Your task to perform on an android device: visit the assistant section in the google photos Image 0: 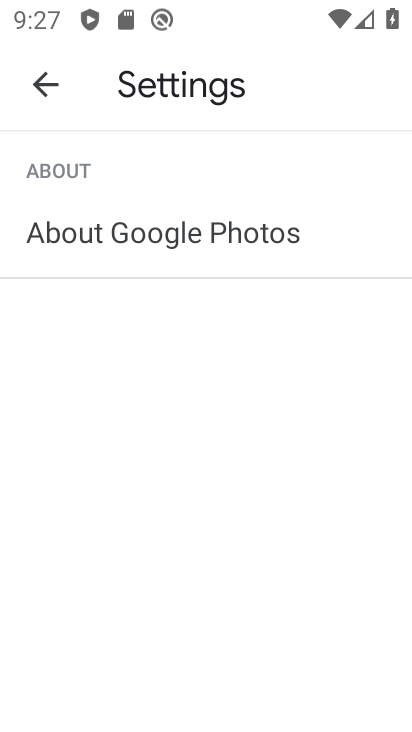
Step 0: press back button
Your task to perform on an android device: visit the assistant section in the google photos Image 1: 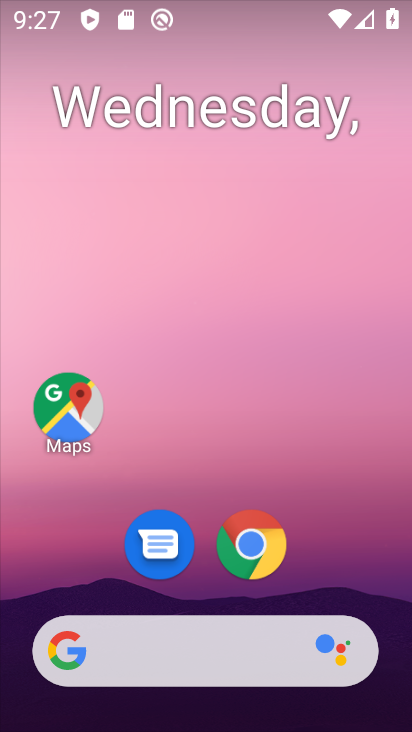
Step 1: drag from (364, 228) to (338, 22)
Your task to perform on an android device: visit the assistant section in the google photos Image 2: 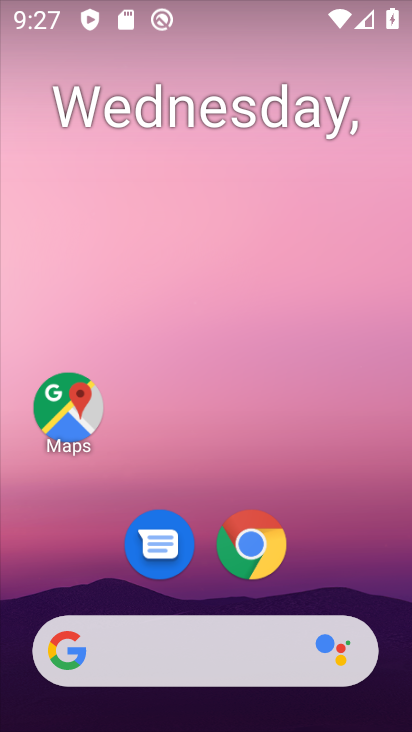
Step 2: drag from (366, 599) to (307, 108)
Your task to perform on an android device: visit the assistant section in the google photos Image 3: 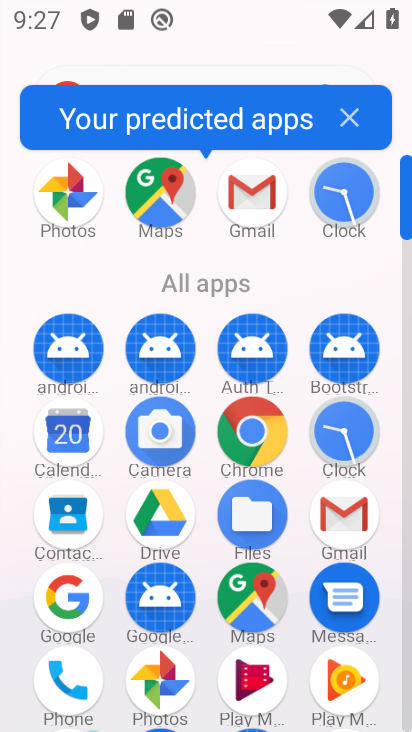
Step 3: click (81, 210)
Your task to perform on an android device: visit the assistant section in the google photos Image 4: 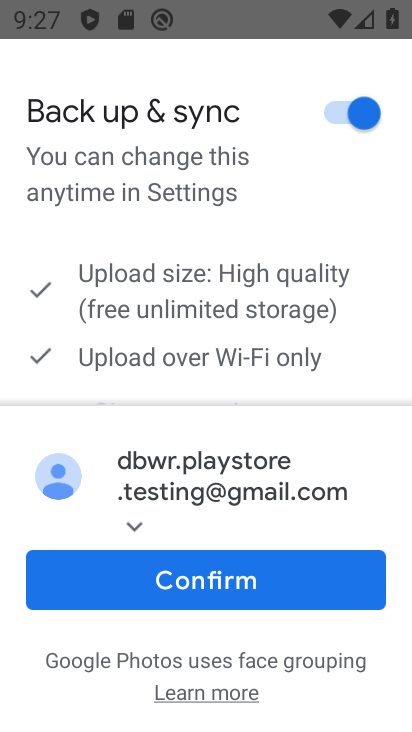
Step 4: click (186, 577)
Your task to perform on an android device: visit the assistant section in the google photos Image 5: 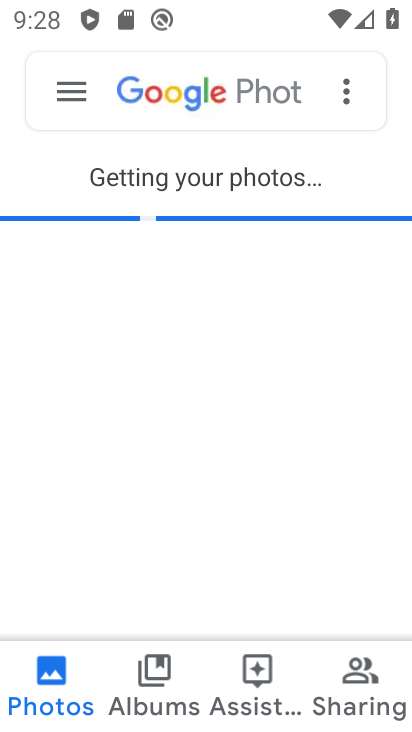
Step 5: click (251, 666)
Your task to perform on an android device: visit the assistant section in the google photos Image 6: 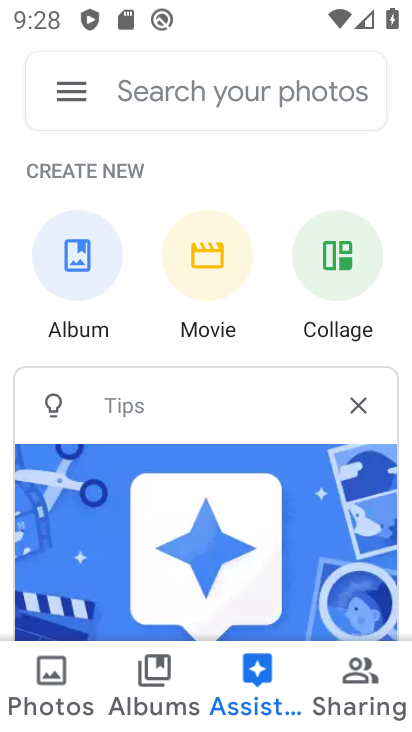
Step 6: task complete